Your task to perform on an android device: open sync settings in chrome Image 0: 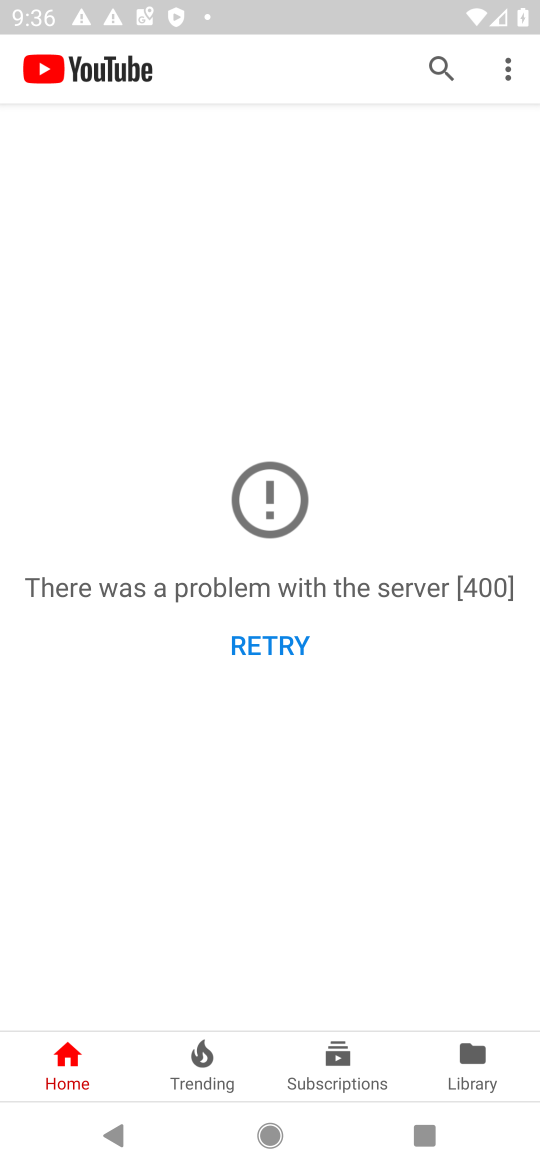
Step 0: press home button
Your task to perform on an android device: open sync settings in chrome Image 1: 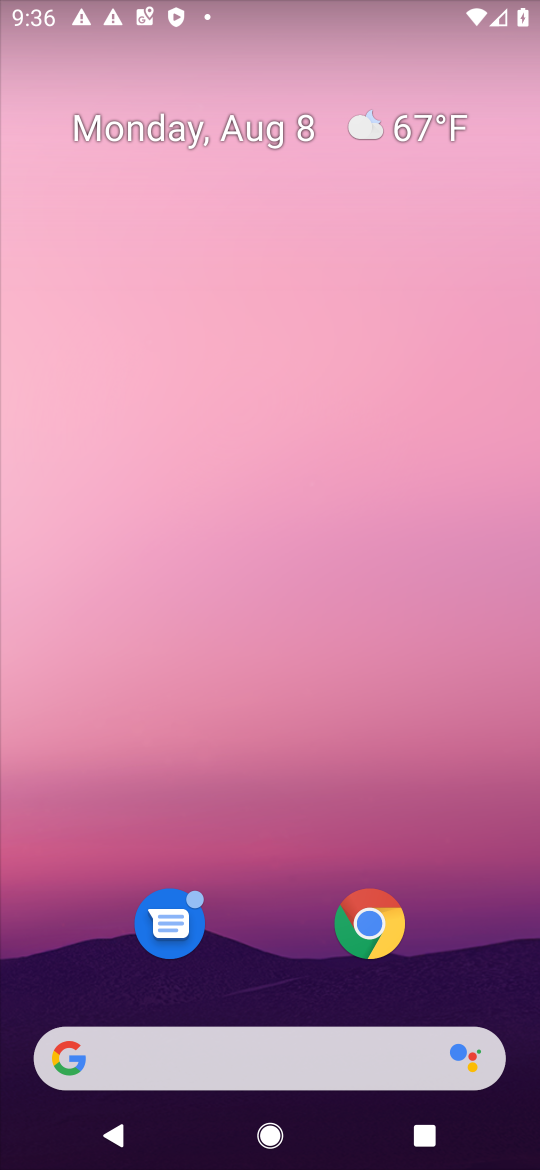
Step 1: click (382, 942)
Your task to perform on an android device: open sync settings in chrome Image 2: 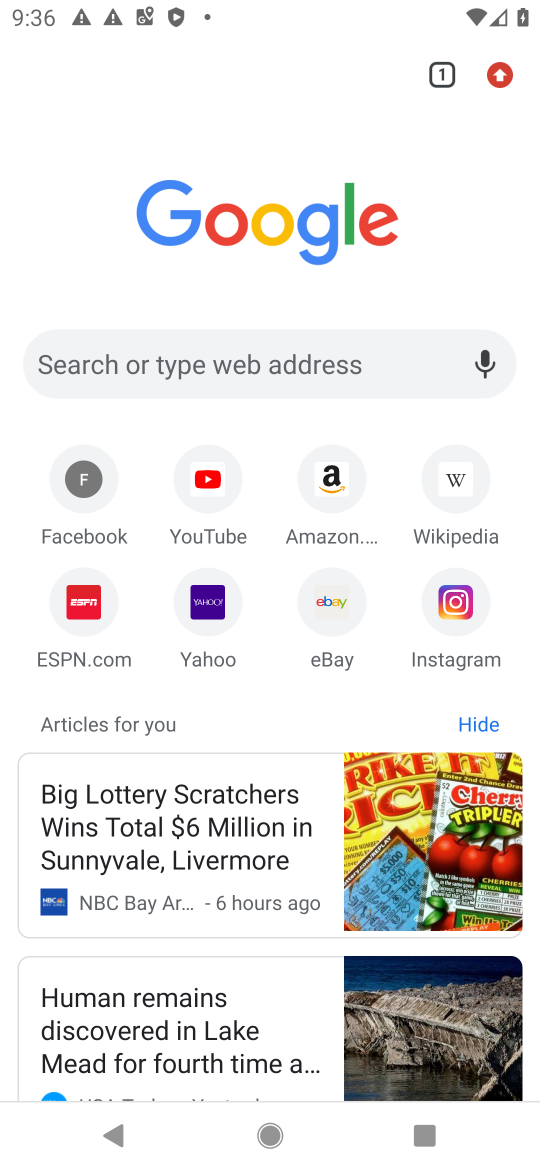
Step 2: click (500, 76)
Your task to perform on an android device: open sync settings in chrome Image 3: 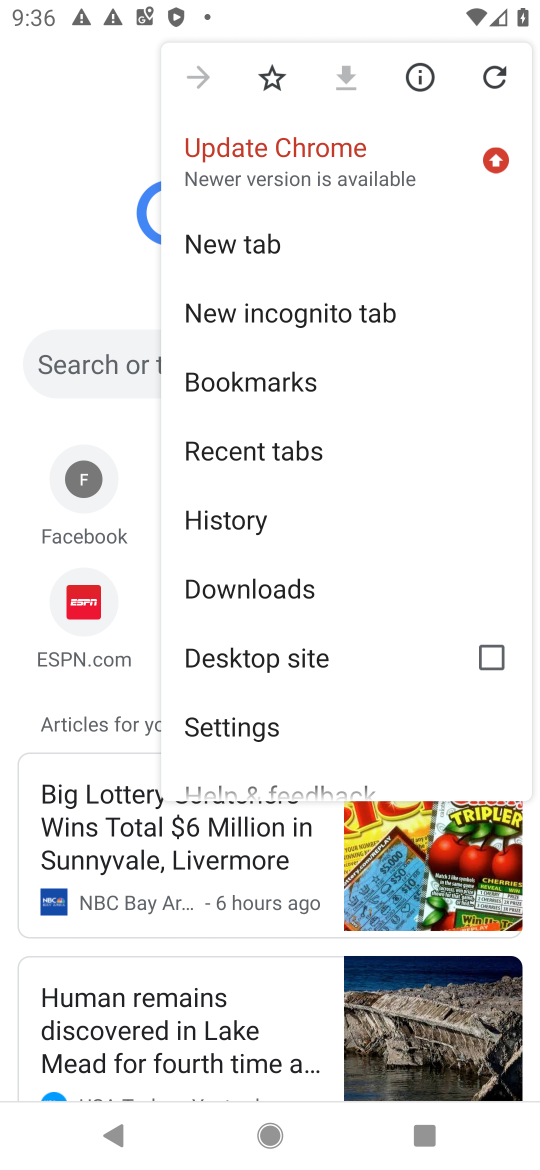
Step 3: click (265, 726)
Your task to perform on an android device: open sync settings in chrome Image 4: 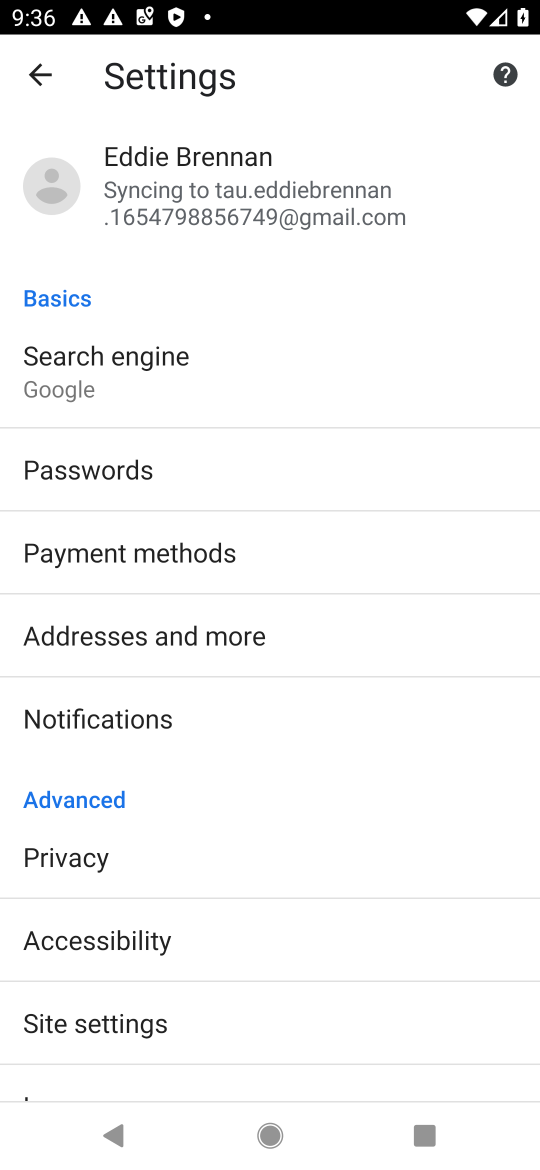
Step 4: click (71, 1029)
Your task to perform on an android device: open sync settings in chrome Image 5: 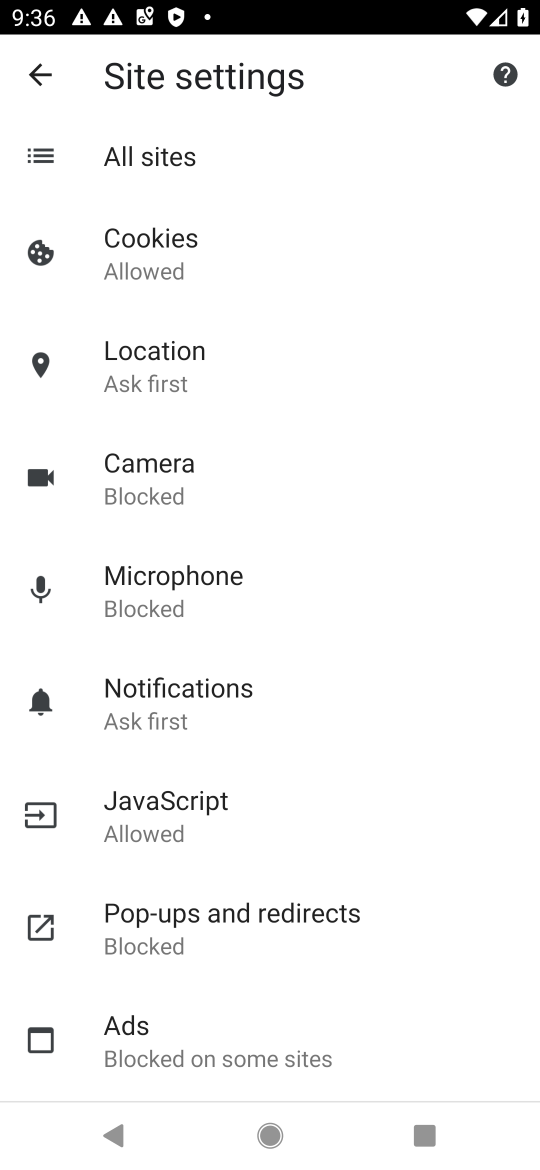
Step 5: drag from (420, 891) to (404, 556)
Your task to perform on an android device: open sync settings in chrome Image 6: 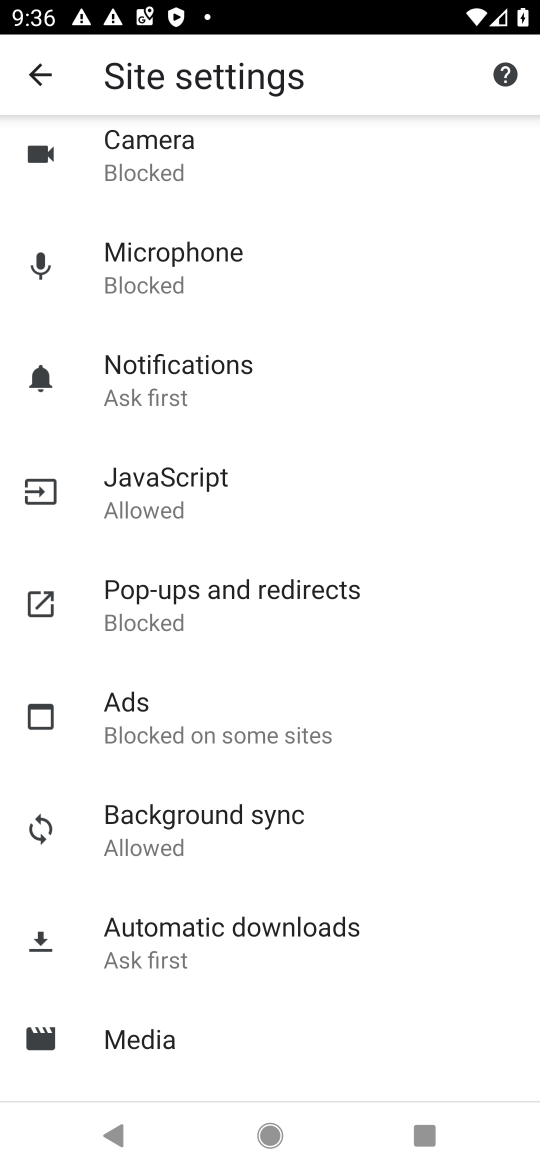
Step 6: drag from (390, 171) to (366, 756)
Your task to perform on an android device: open sync settings in chrome Image 7: 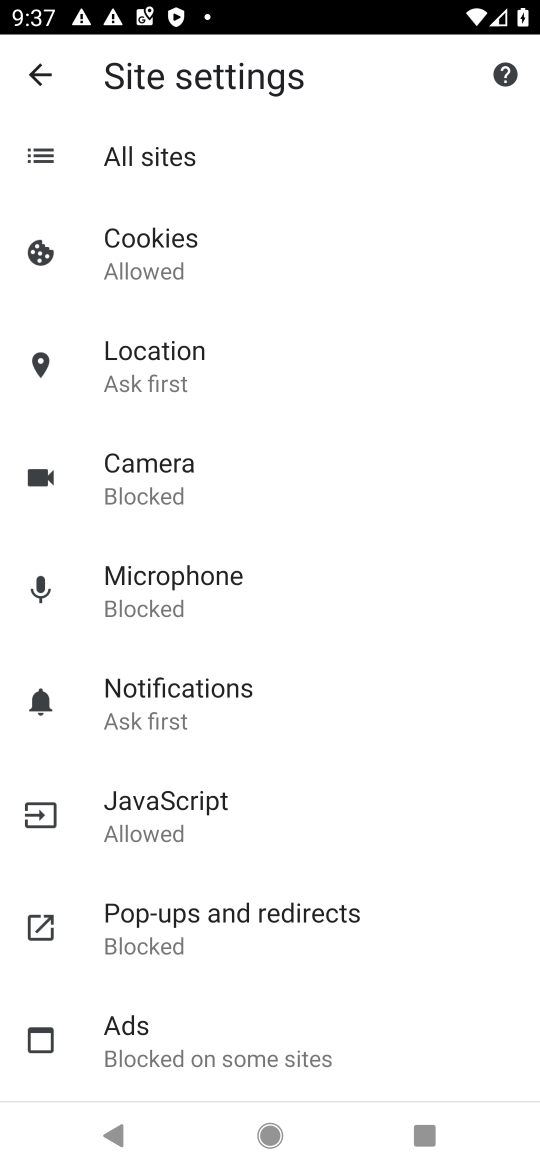
Step 7: drag from (408, 996) to (461, 320)
Your task to perform on an android device: open sync settings in chrome Image 8: 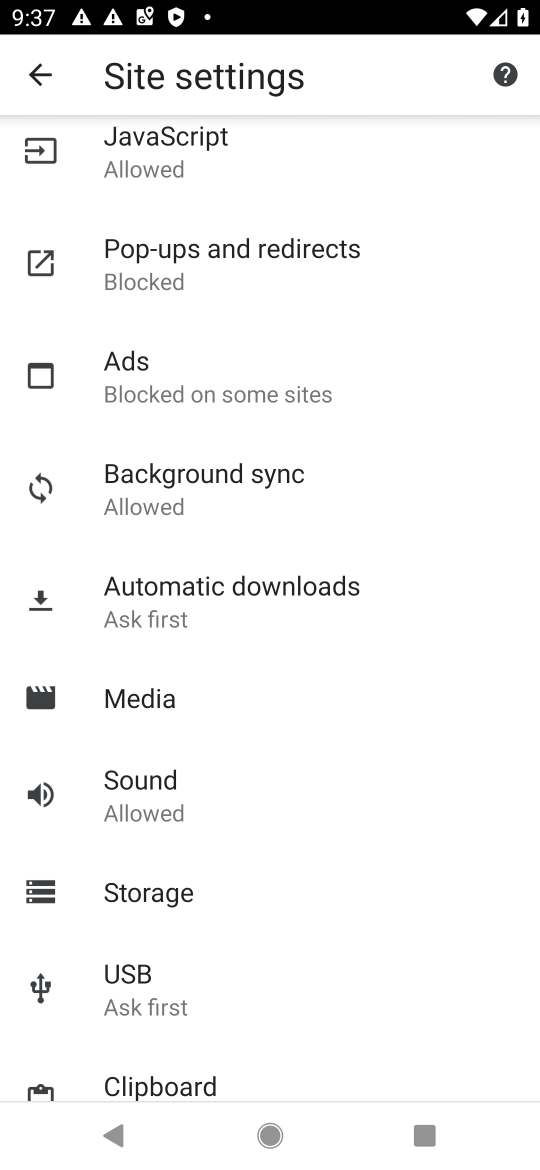
Step 8: click (249, 480)
Your task to perform on an android device: open sync settings in chrome Image 9: 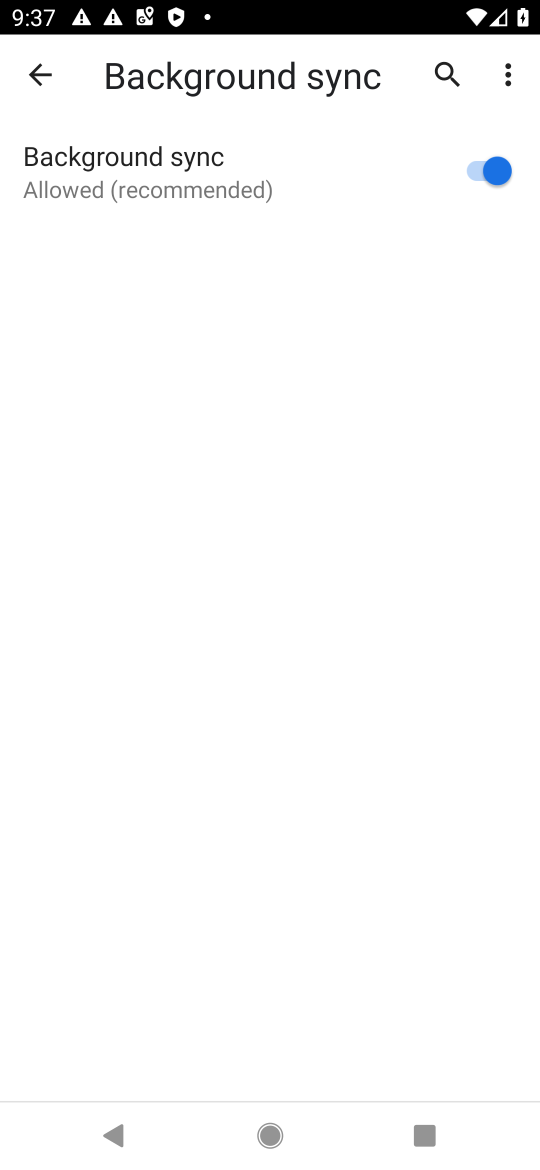
Step 9: task complete